Your task to perform on an android device: Open sound settings Image 0: 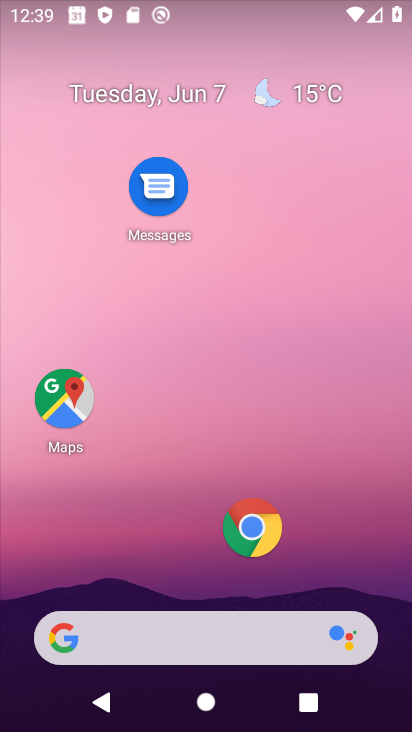
Step 0: drag from (208, 619) to (208, 203)
Your task to perform on an android device: Open sound settings Image 1: 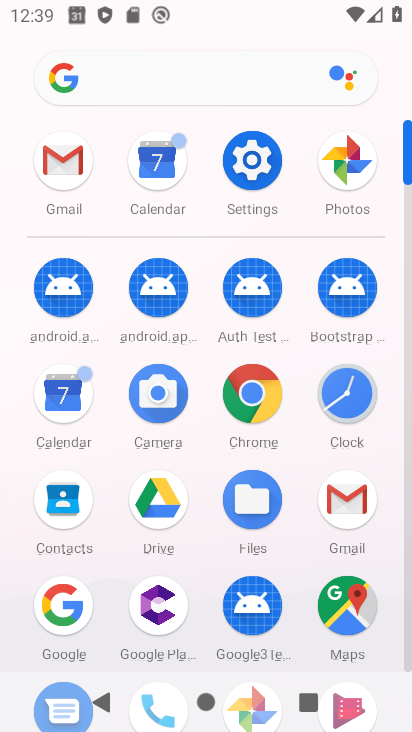
Step 1: click (251, 154)
Your task to perform on an android device: Open sound settings Image 2: 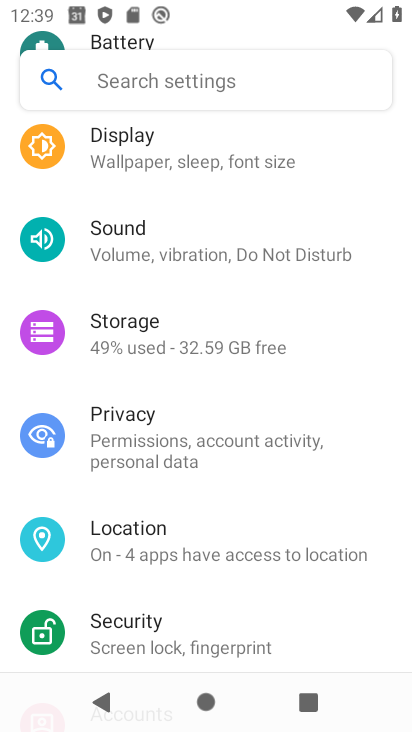
Step 2: click (127, 240)
Your task to perform on an android device: Open sound settings Image 3: 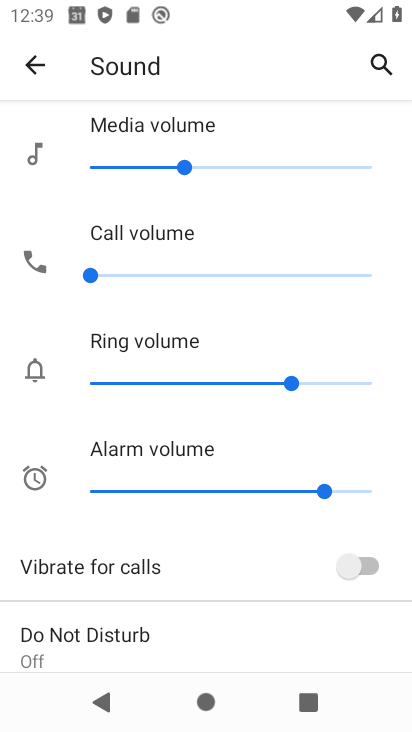
Step 3: task complete